Your task to perform on an android device: Go to Wikipedia Image 0: 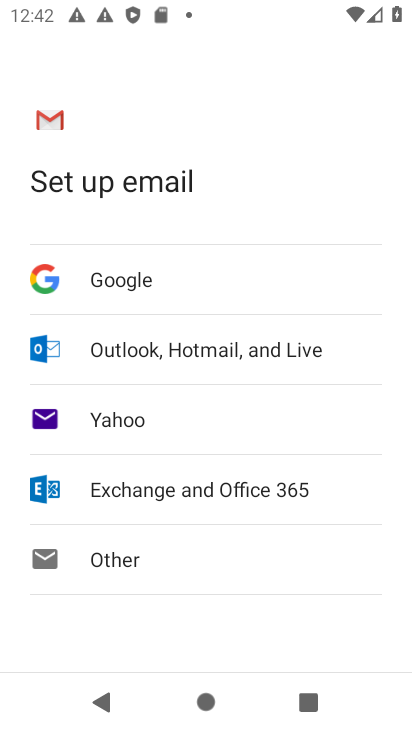
Step 0: press home button
Your task to perform on an android device: Go to Wikipedia Image 1: 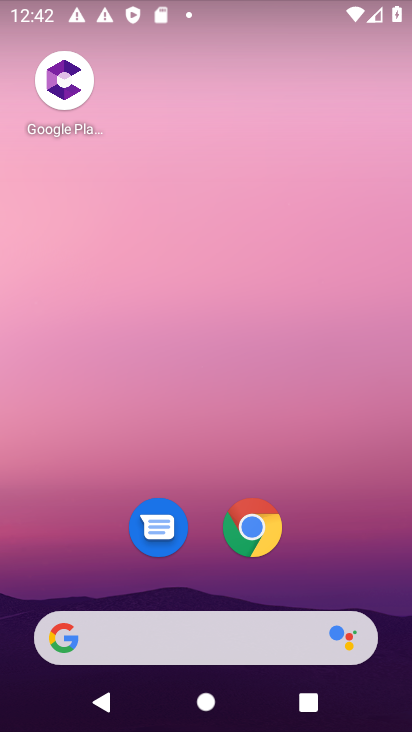
Step 1: drag from (249, 557) to (262, 0)
Your task to perform on an android device: Go to Wikipedia Image 2: 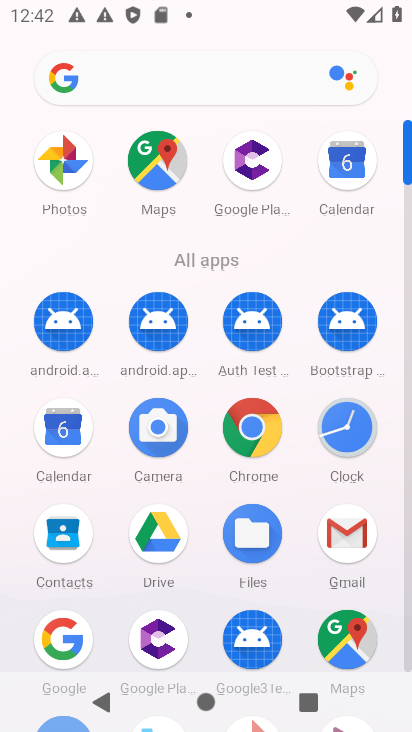
Step 2: click (257, 447)
Your task to perform on an android device: Go to Wikipedia Image 3: 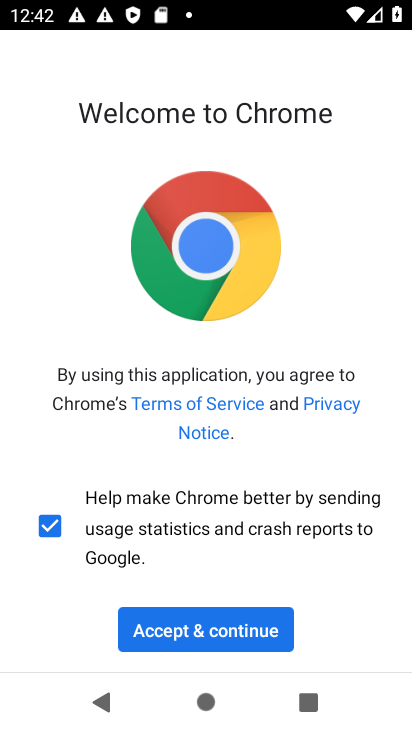
Step 3: click (214, 627)
Your task to perform on an android device: Go to Wikipedia Image 4: 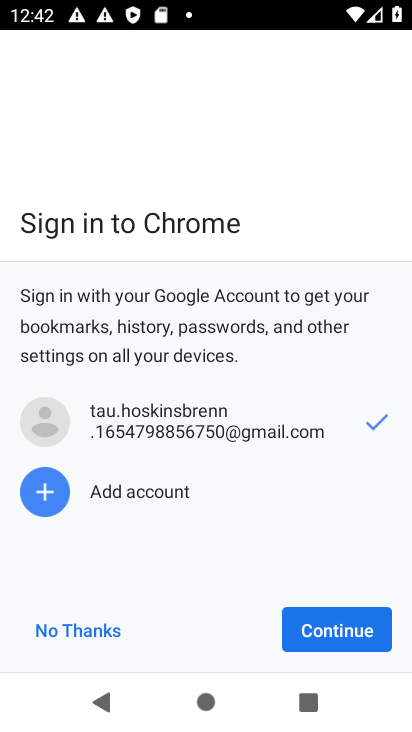
Step 4: click (42, 626)
Your task to perform on an android device: Go to Wikipedia Image 5: 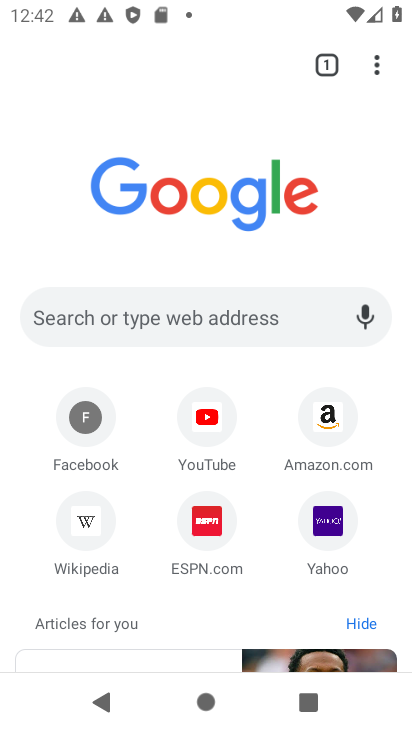
Step 5: click (82, 527)
Your task to perform on an android device: Go to Wikipedia Image 6: 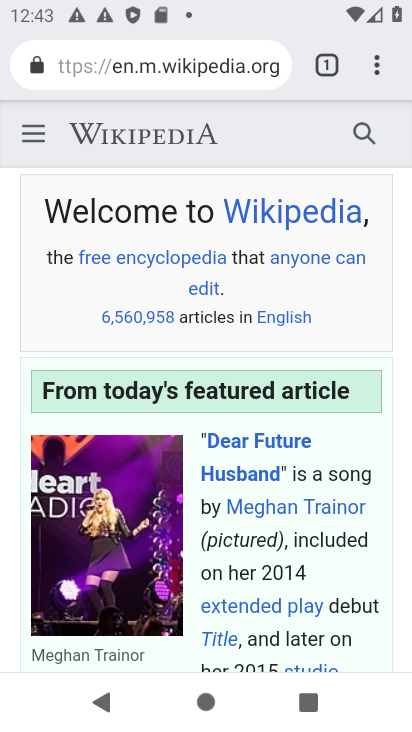
Step 6: task complete